Your task to perform on an android device: open the mobile data screen to see how much data has been used Image 0: 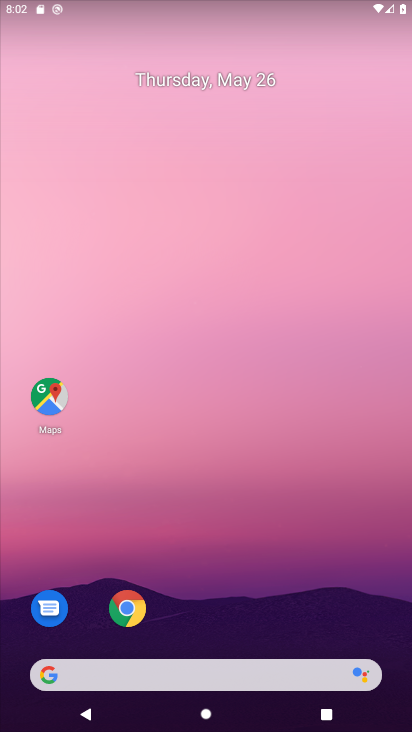
Step 0: drag from (138, 721) to (226, 153)
Your task to perform on an android device: open the mobile data screen to see how much data has been used Image 1: 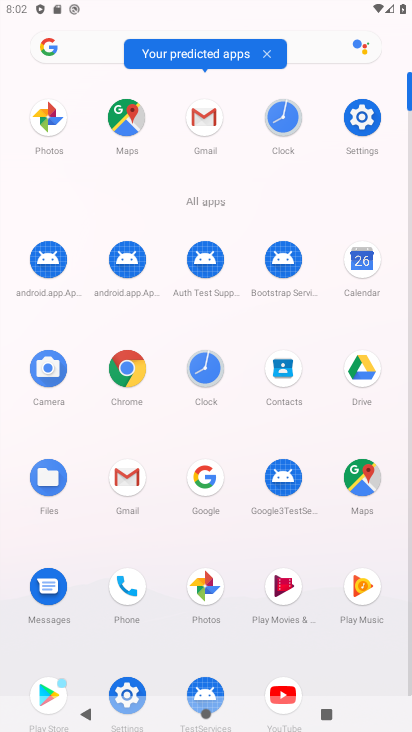
Step 1: click (366, 133)
Your task to perform on an android device: open the mobile data screen to see how much data has been used Image 2: 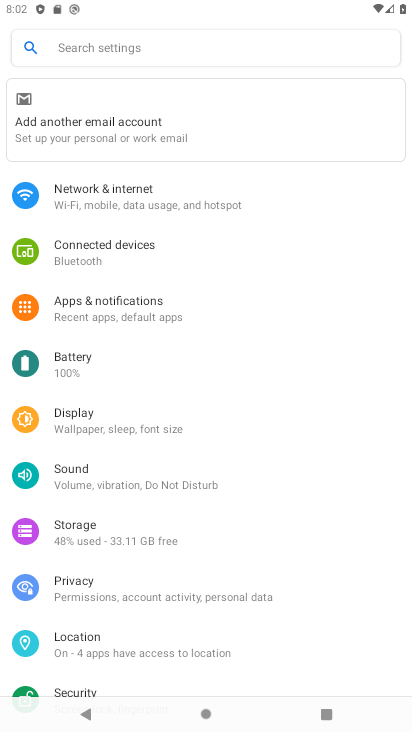
Step 2: click (129, 203)
Your task to perform on an android device: open the mobile data screen to see how much data has been used Image 3: 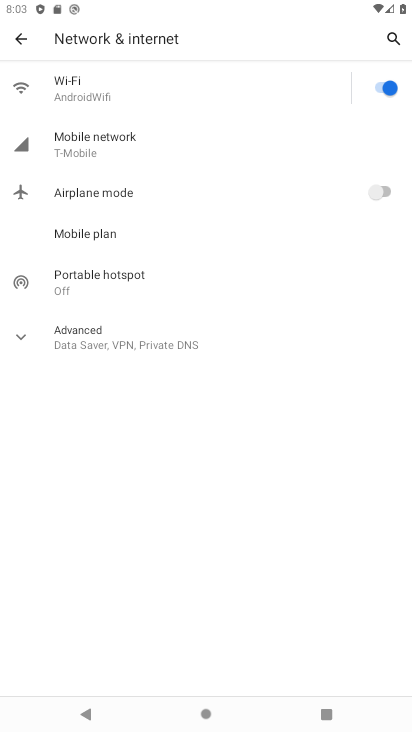
Step 3: click (133, 156)
Your task to perform on an android device: open the mobile data screen to see how much data has been used Image 4: 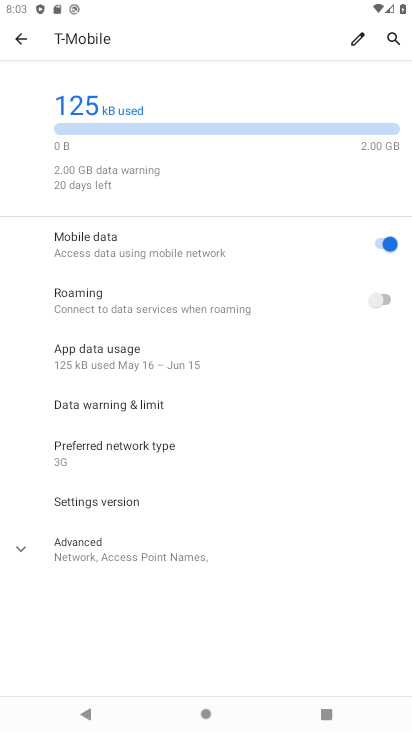
Step 4: task complete